Your task to perform on an android device: Open CNN.com Image 0: 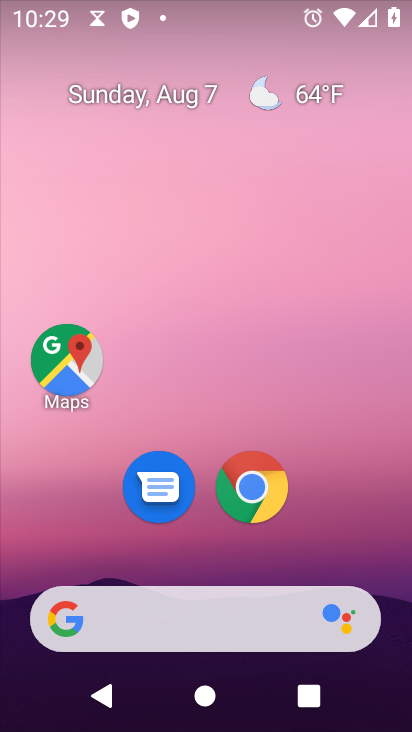
Step 0: click (245, 475)
Your task to perform on an android device: Open CNN.com Image 1: 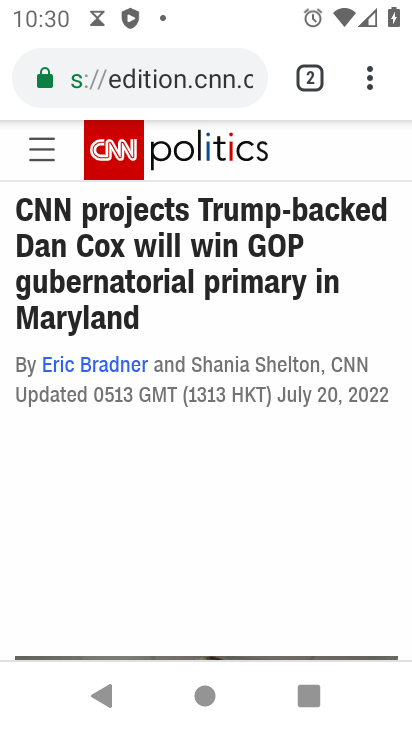
Step 1: click (231, 70)
Your task to perform on an android device: Open CNN.com Image 2: 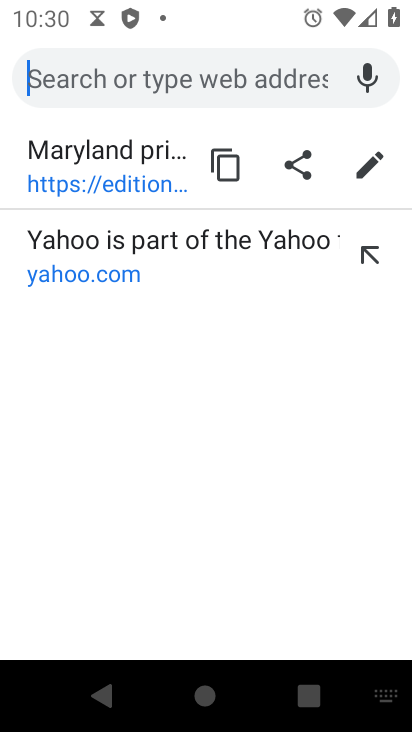
Step 2: type "CNN.com"
Your task to perform on an android device: Open CNN.com Image 3: 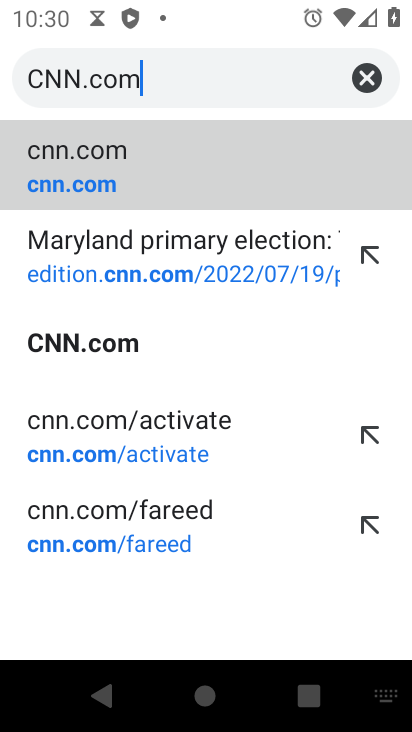
Step 3: click (66, 338)
Your task to perform on an android device: Open CNN.com Image 4: 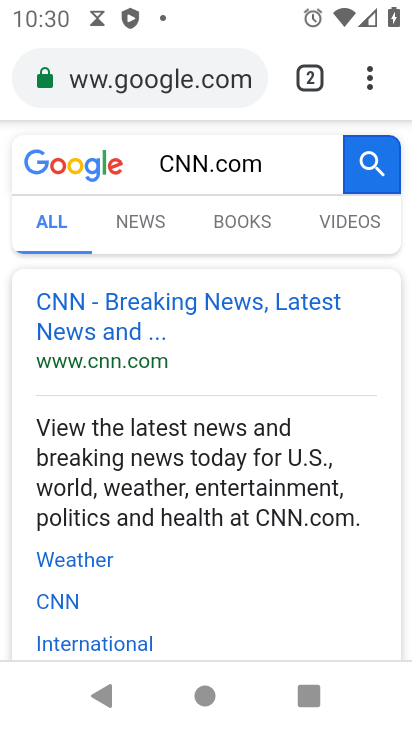
Step 4: task complete